Your task to perform on an android device: change text size in settings app Image 0: 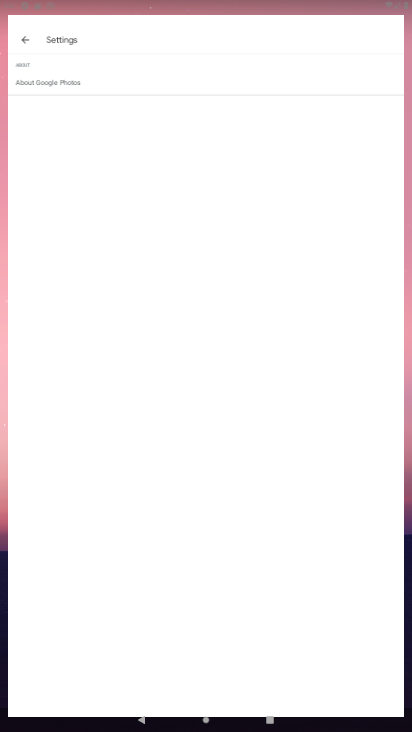
Step 0: drag from (306, 548) to (305, 62)
Your task to perform on an android device: change text size in settings app Image 1: 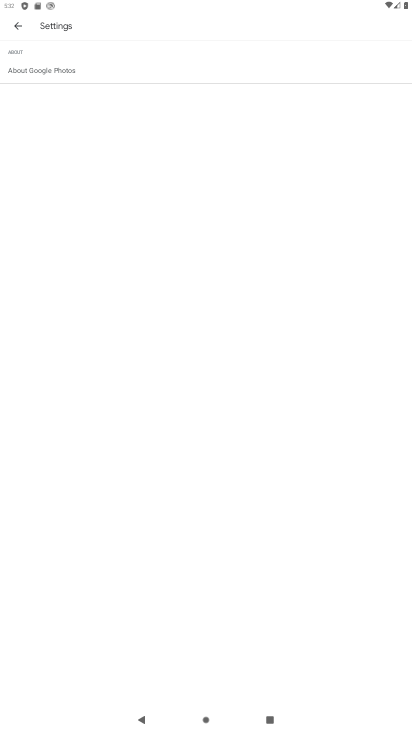
Step 1: press home button
Your task to perform on an android device: change text size in settings app Image 2: 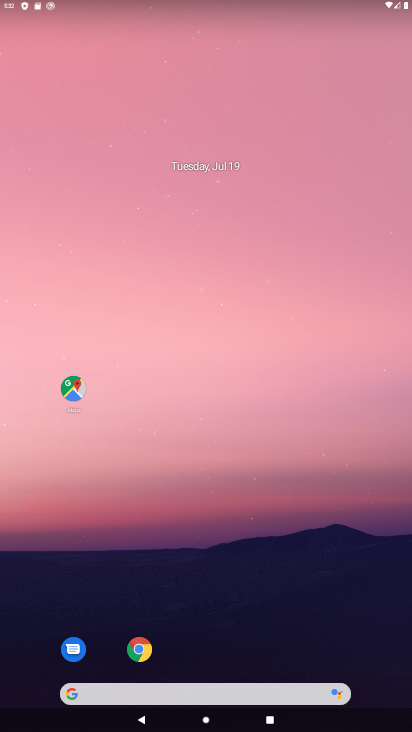
Step 2: drag from (237, 403) to (278, 20)
Your task to perform on an android device: change text size in settings app Image 3: 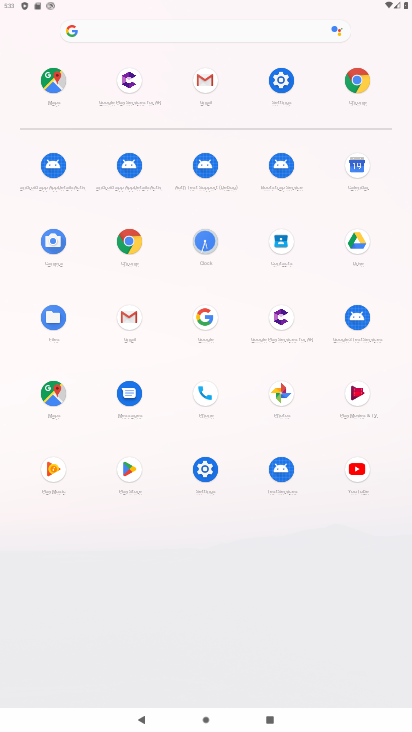
Step 3: click (287, 80)
Your task to perform on an android device: change text size in settings app Image 4: 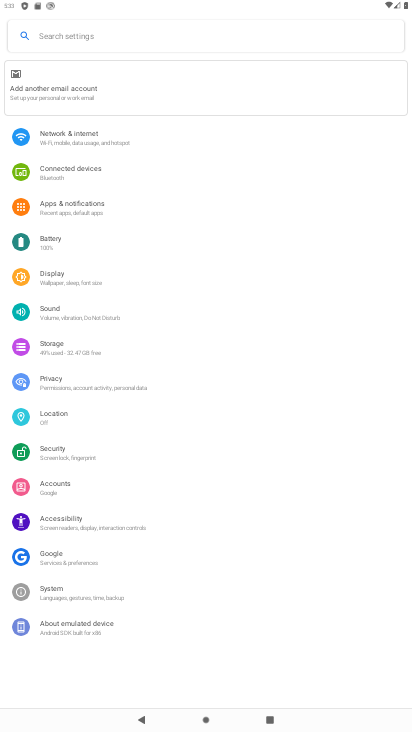
Step 4: click (73, 281)
Your task to perform on an android device: change text size in settings app Image 5: 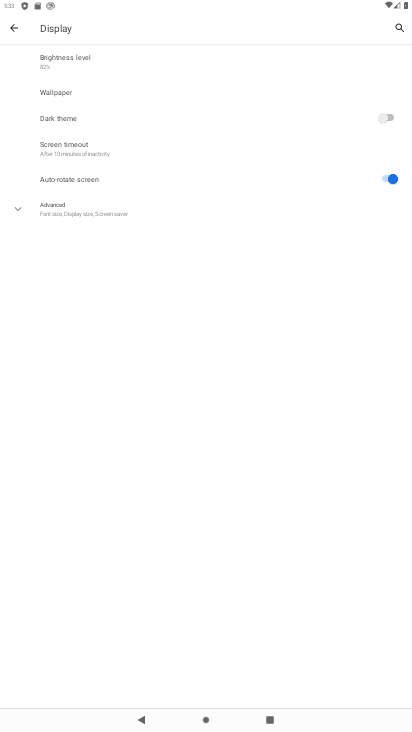
Step 5: click (61, 214)
Your task to perform on an android device: change text size in settings app Image 6: 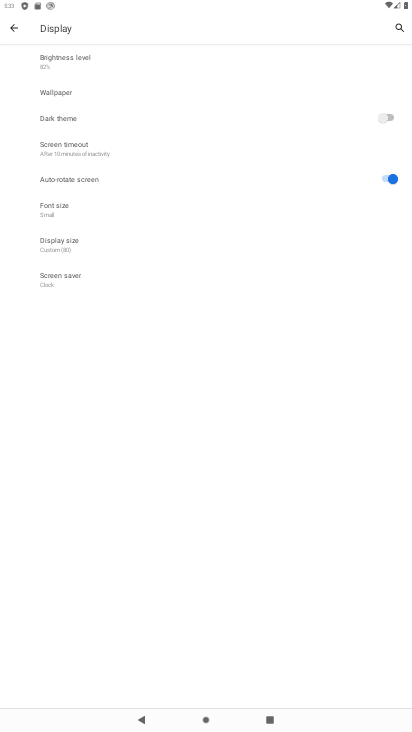
Step 6: click (55, 205)
Your task to perform on an android device: change text size in settings app Image 7: 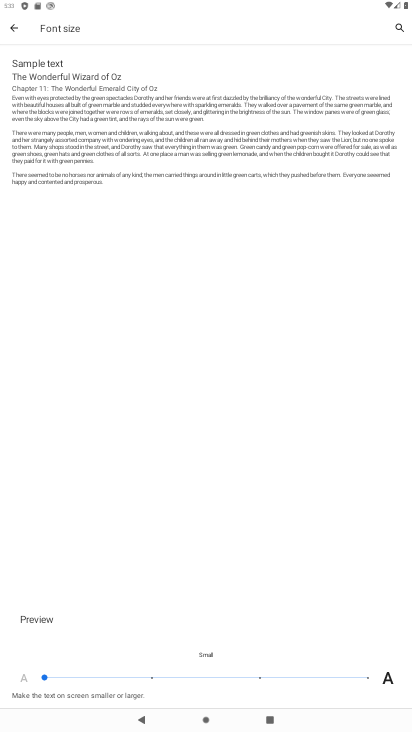
Step 7: click (116, 671)
Your task to perform on an android device: change text size in settings app Image 8: 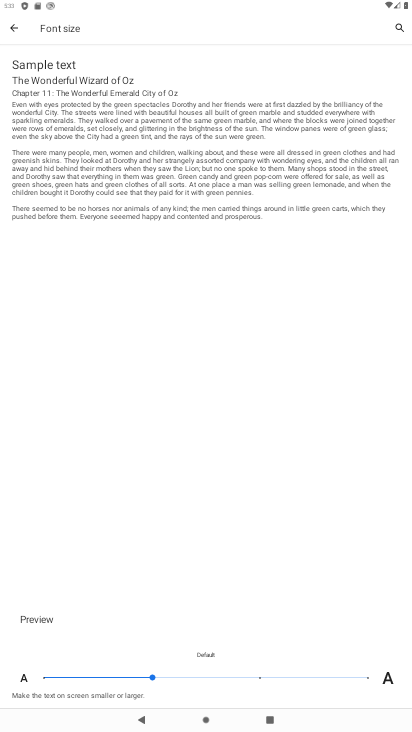
Step 8: task complete